Your task to perform on an android device: find photos in the google photos app Image 0: 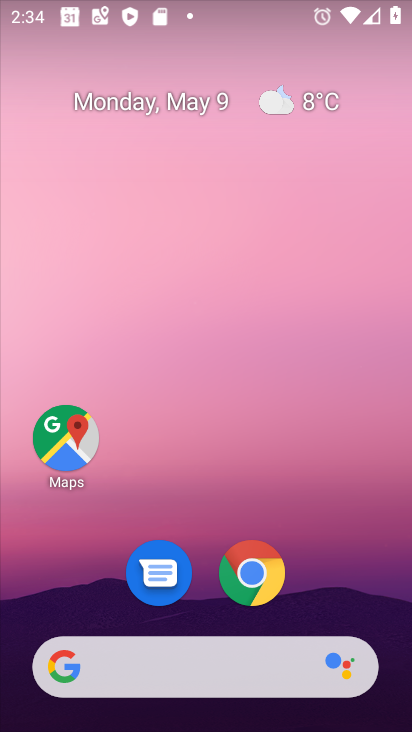
Step 0: press home button
Your task to perform on an android device: find photos in the google photos app Image 1: 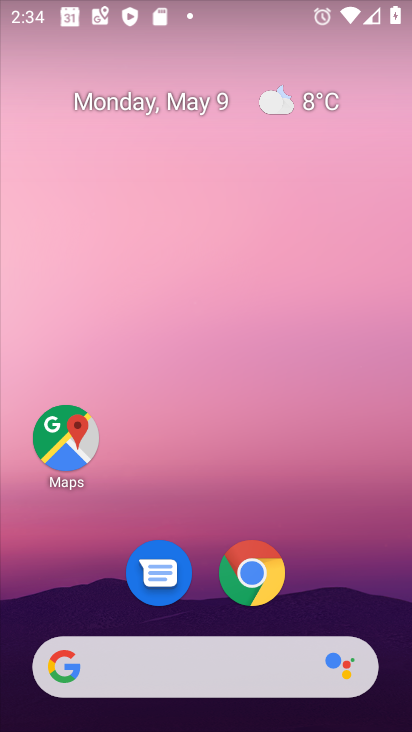
Step 1: drag from (152, 668) to (270, 66)
Your task to perform on an android device: find photos in the google photos app Image 2: 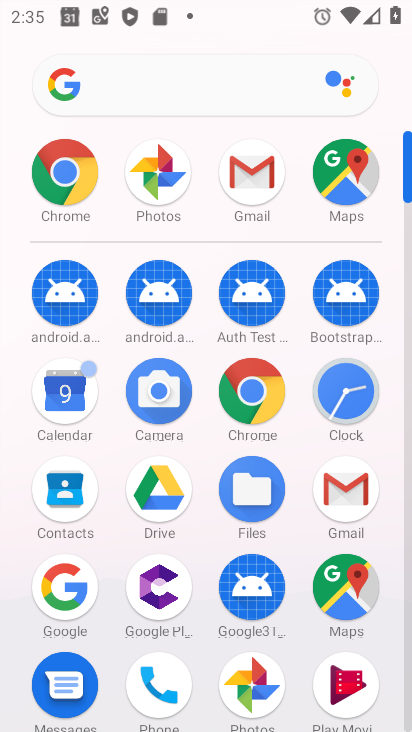
Step 2: click (242, 671)
Your task to perform on an android device: find photos in the google photos app Image 3: 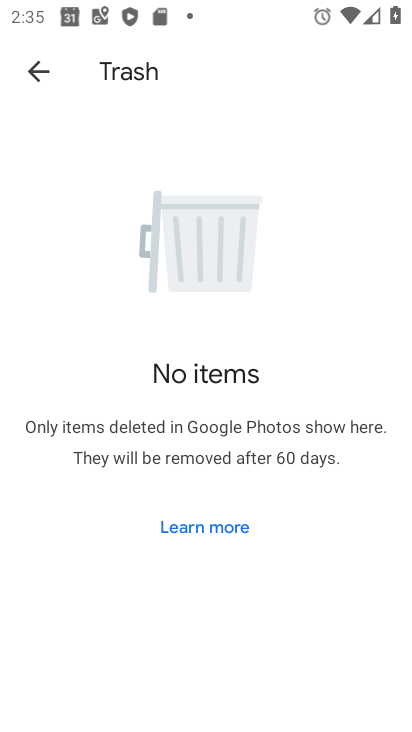
Step 3: click (24, 66)
Your task to perform on an android device: find photos in the google photos app Image 4: 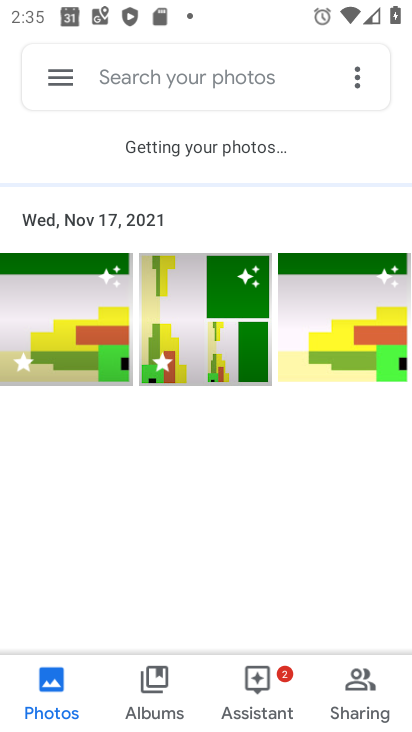
Step 4: task complete